Your task to perform on an android device: Search for seafood restaurants on Google Maps Image 0: 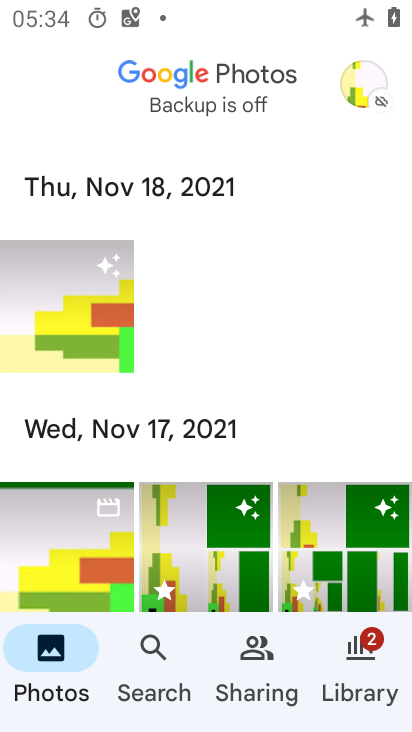
Step 0: press home button
Your task to perform on an android device: Search for seafood restaurants on Google Maps Image 1: 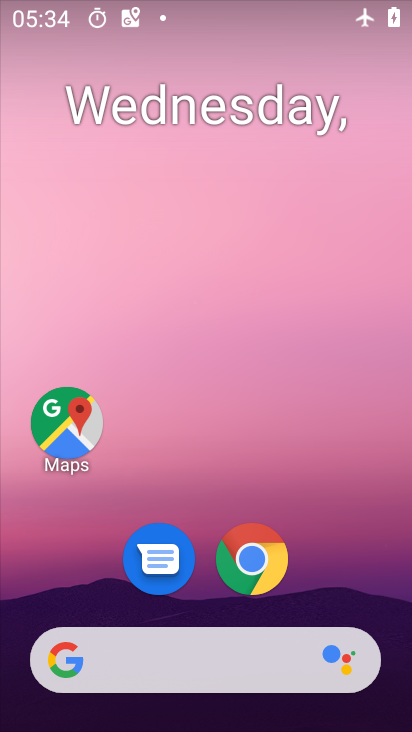
Step 1: click (79, 426)
Your task to perform on an android device: Search for seafood restaurants on Google Maps Image 2: 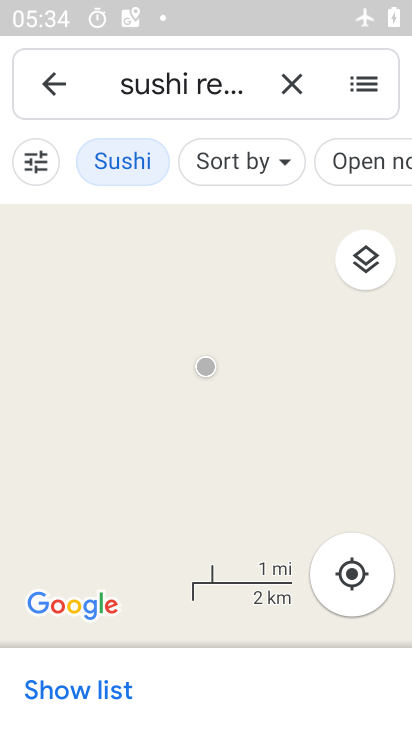
Step 2: click (293, 86)
Your task to perform on an android device: Search for seafood restaurants on Google Maps Image 3: 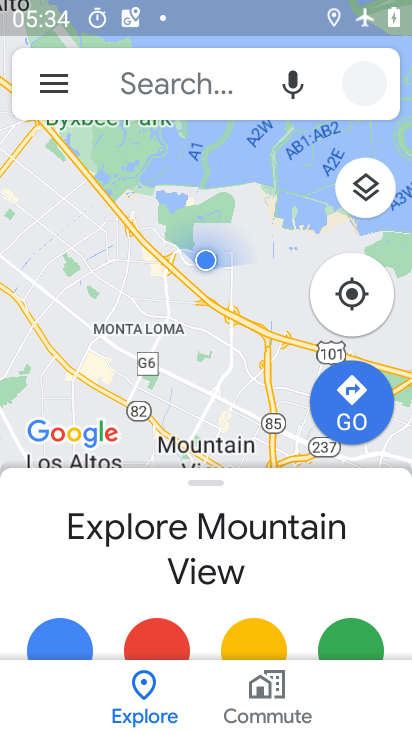
Step 3: click (115, 70)
Your task to perform on an android device: Search for seafood restaurants on Google Maps Image 4: 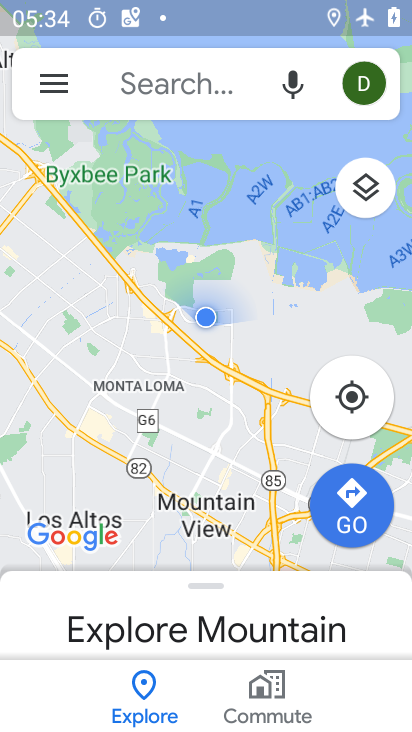
Step 4: click (137, 84)
Your task to perform on an android device: Search for seafood restaurants on Google Maps Image 5: 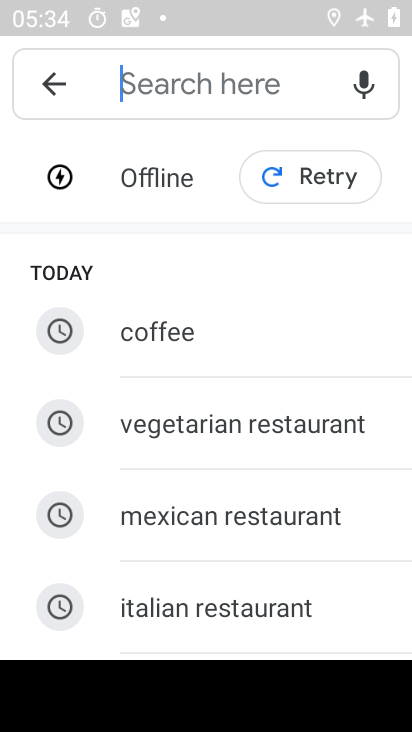
Step 5: drag from (277, 562) to (275, 291)
Your task to perform on an android device: Search for seafood restaurants on Google Maps Image 6: 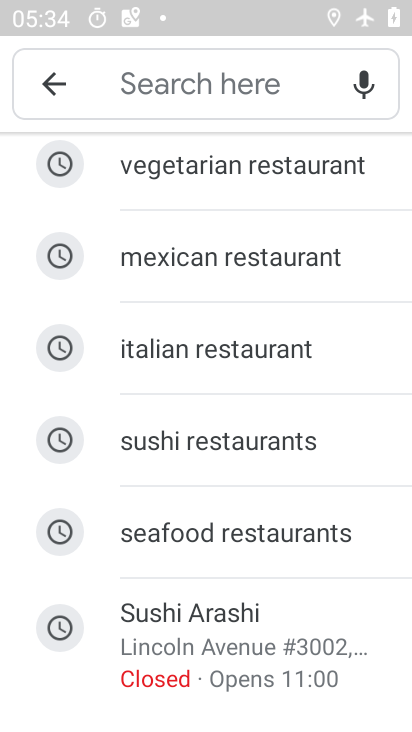
Step 6: click (208, 530)
Your task to perform on an android device: Search for seafood restaurants on Google Maps Image 7: 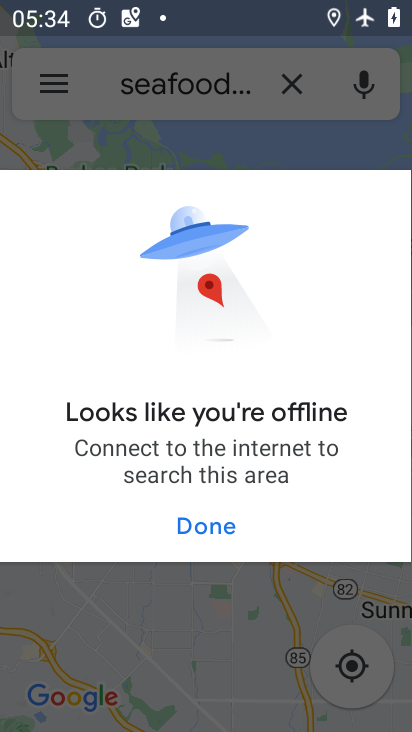
Step 7: click (210, 519)
Your task to perform on an android device: Search for seafood restaurants on Google Maps Image 8: 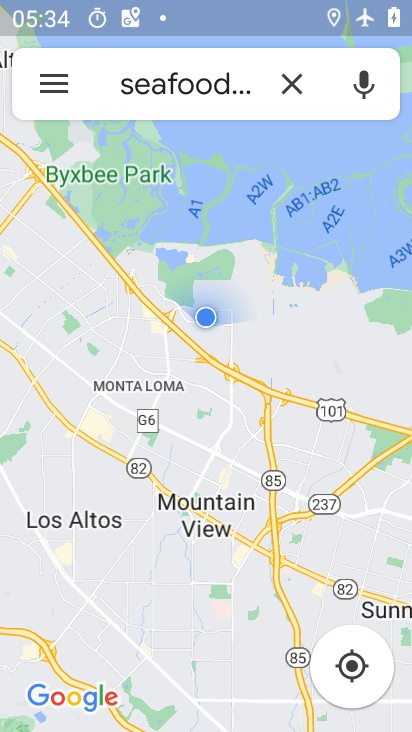
Step 8: task complete